Your task to perform on an android device: set the timer Image 0: 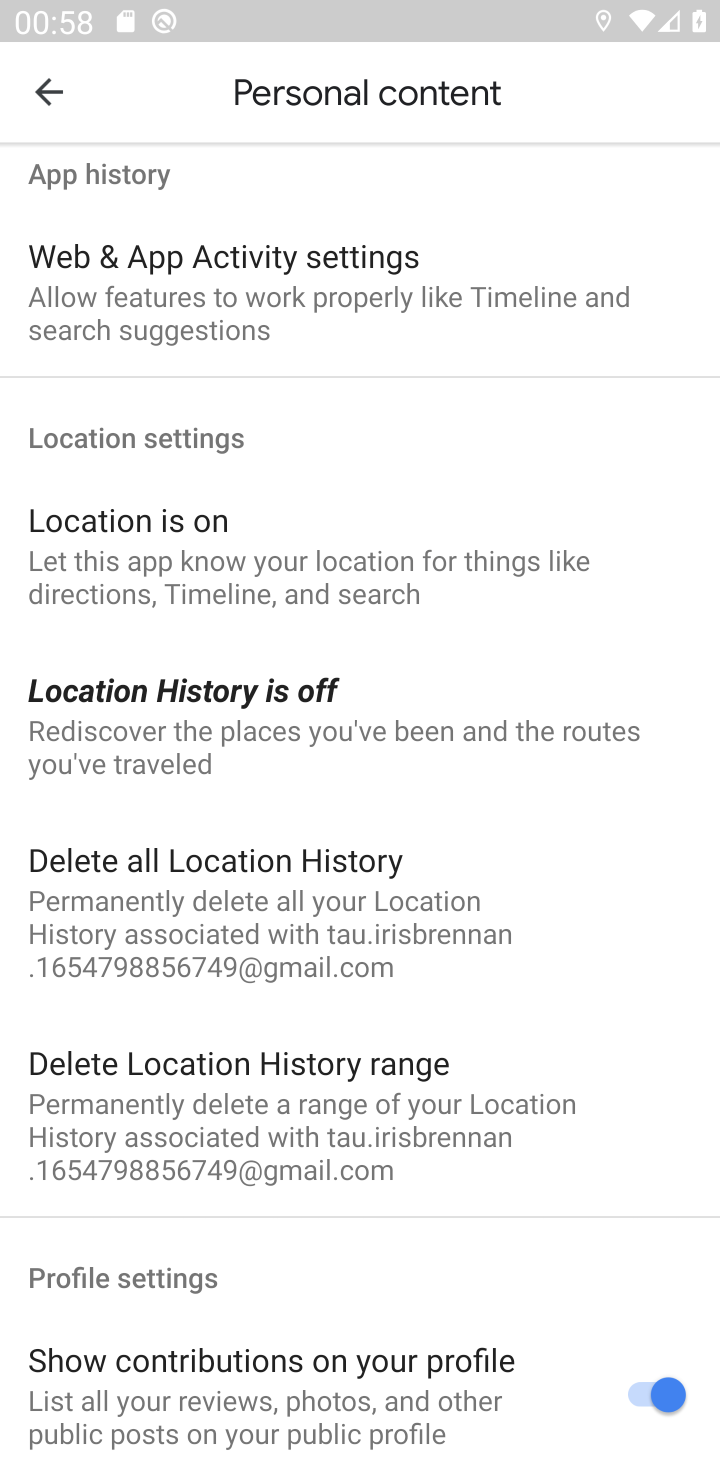
Step 0: click (60, 100)
Your task to perform on an android device: set the timer Image 1: 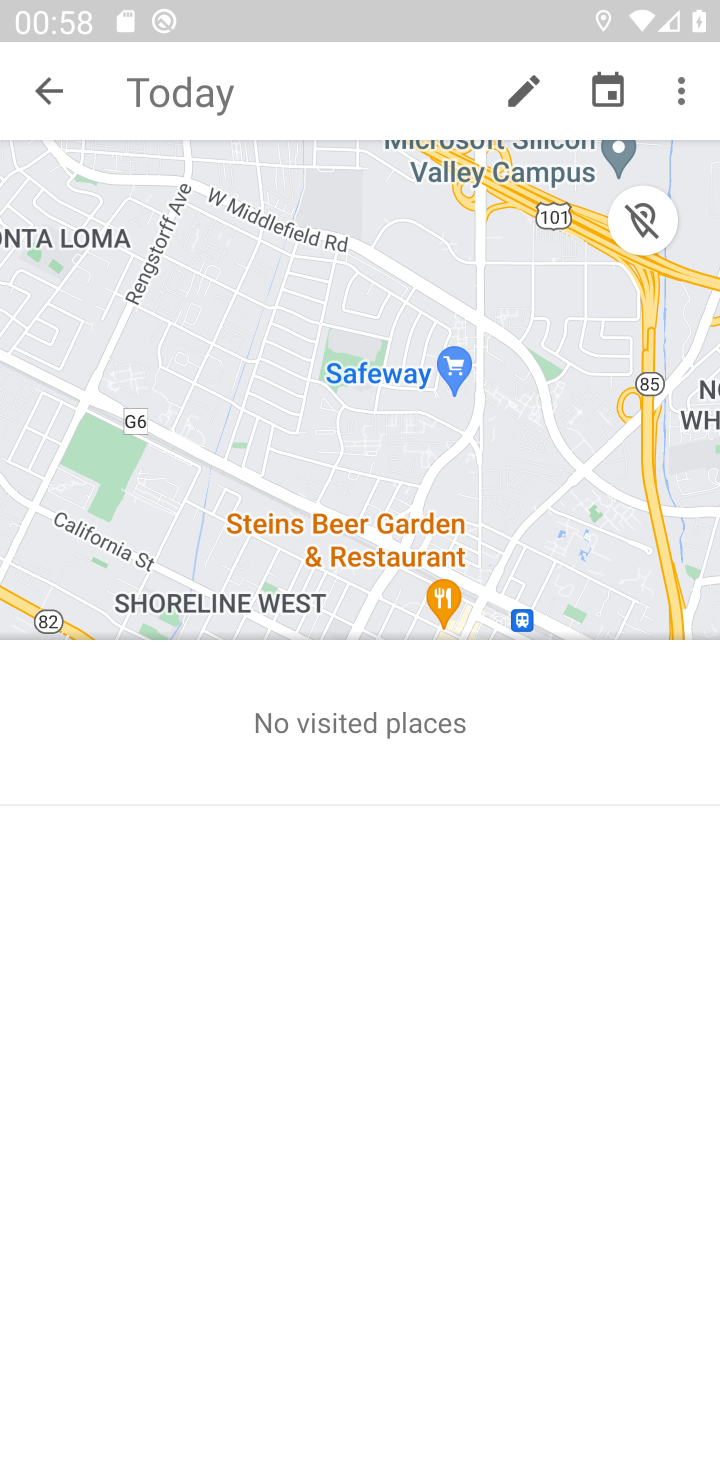
Step 1: press home button
Your task to perform on an android device: set the timer Image 2: 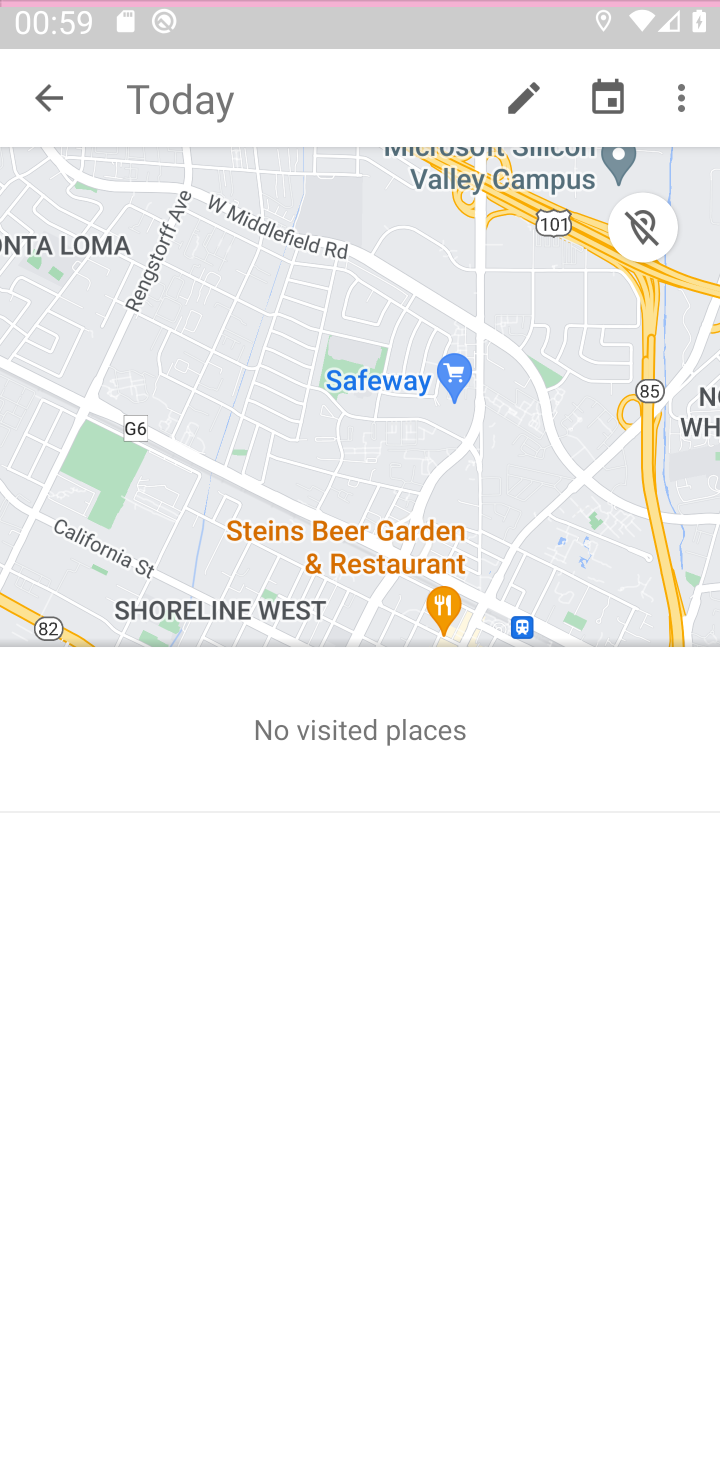
Step 2: press home button
Your task to perform on an android device: set the timer Image 3: 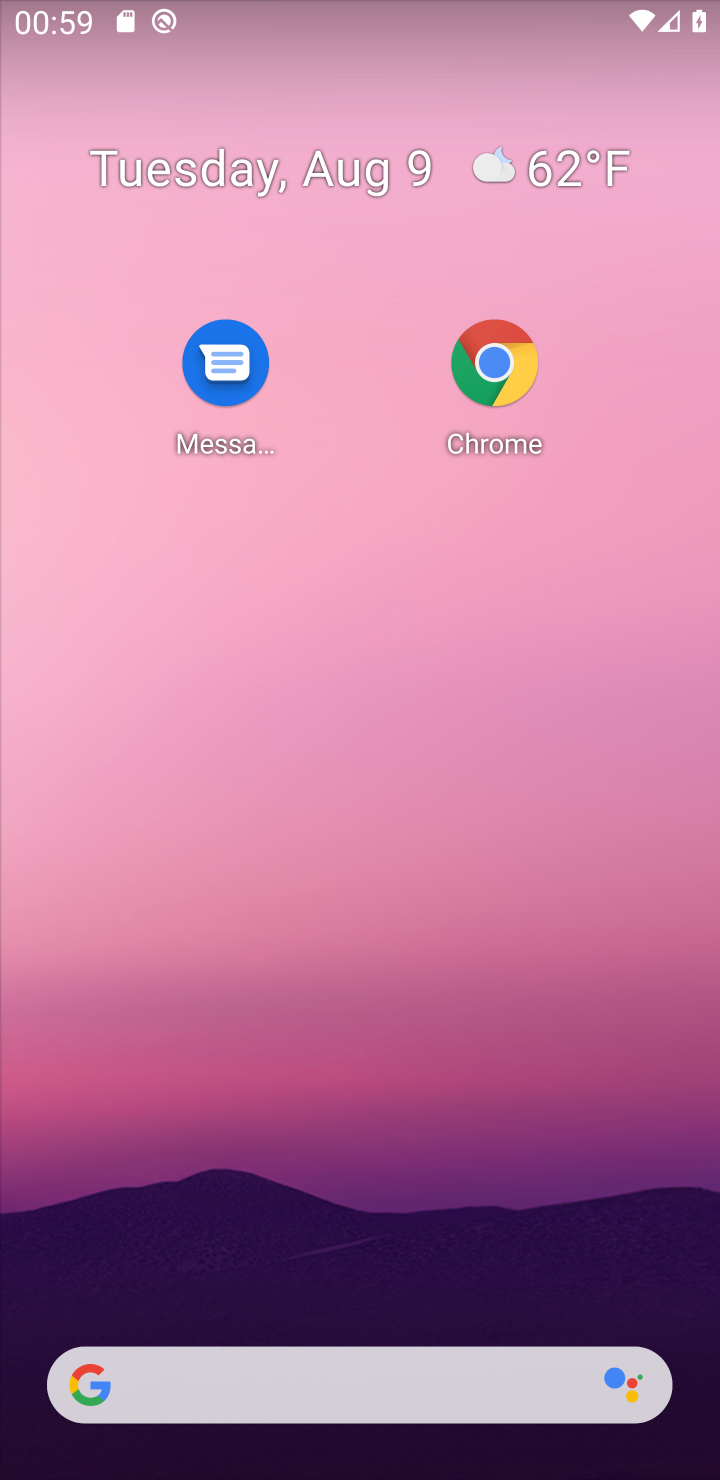
Step 3: drag from (392, 1147) to (484, 253)
Your task to perform on an android device: set the timer Image 4: 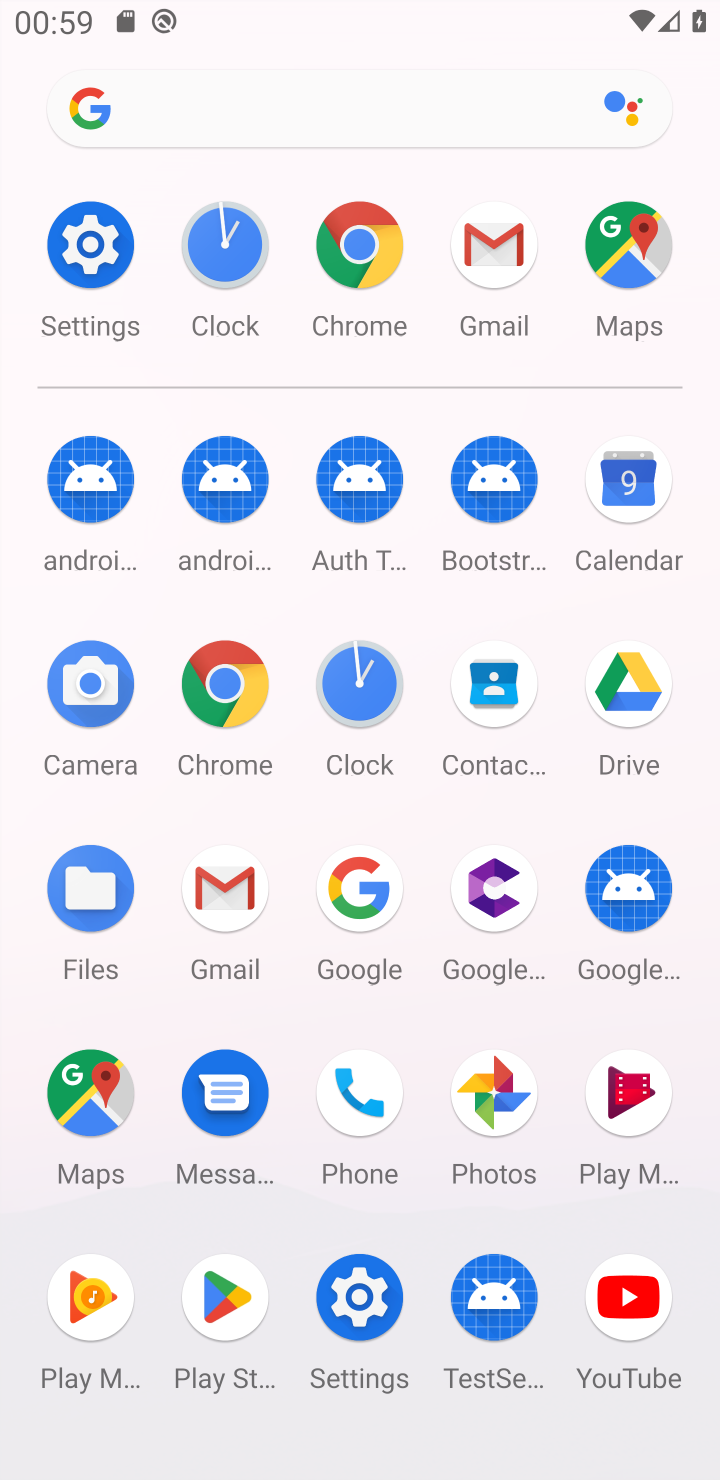
Step 4: click (361, 714)
Your task to perform on an android device: set the timer Image 5: 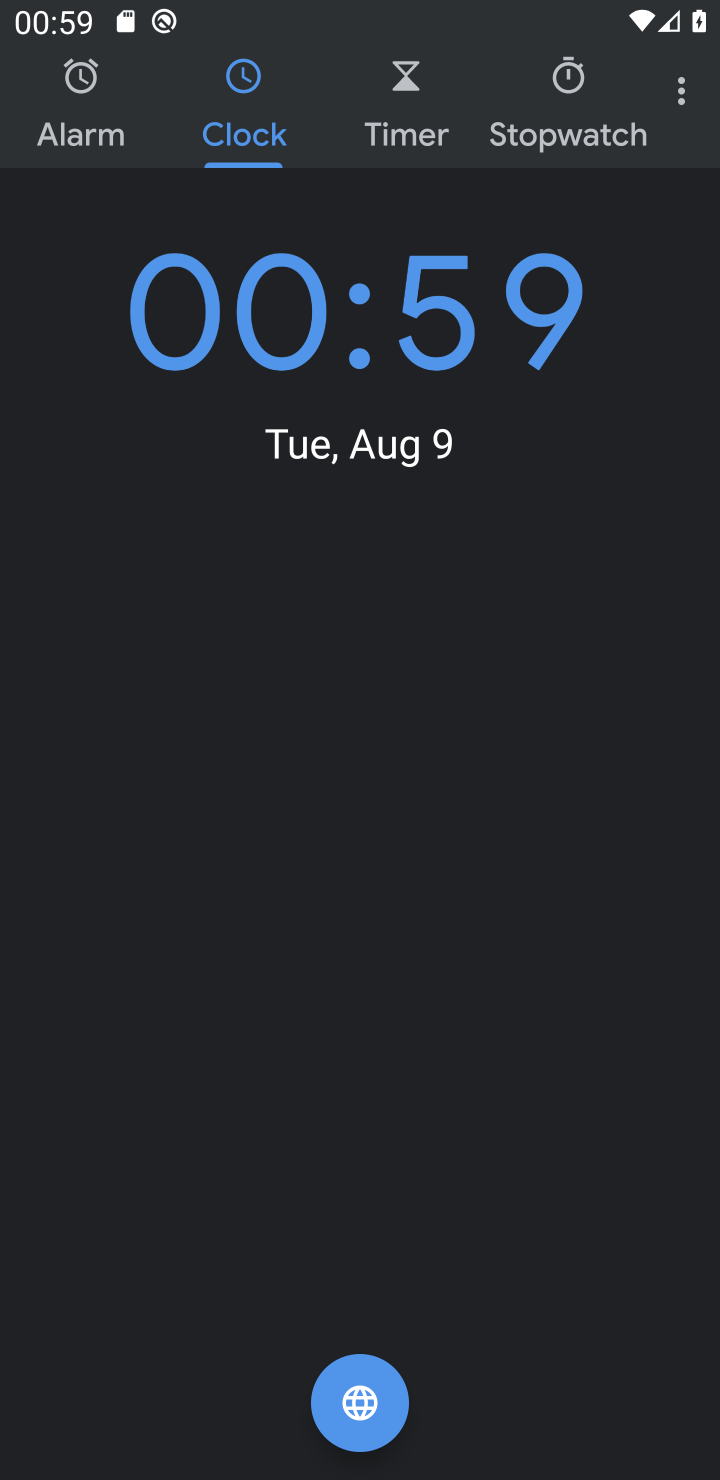
Step 5: click (411, 102)
Your task to perform on an android device: set the timer Image 6: 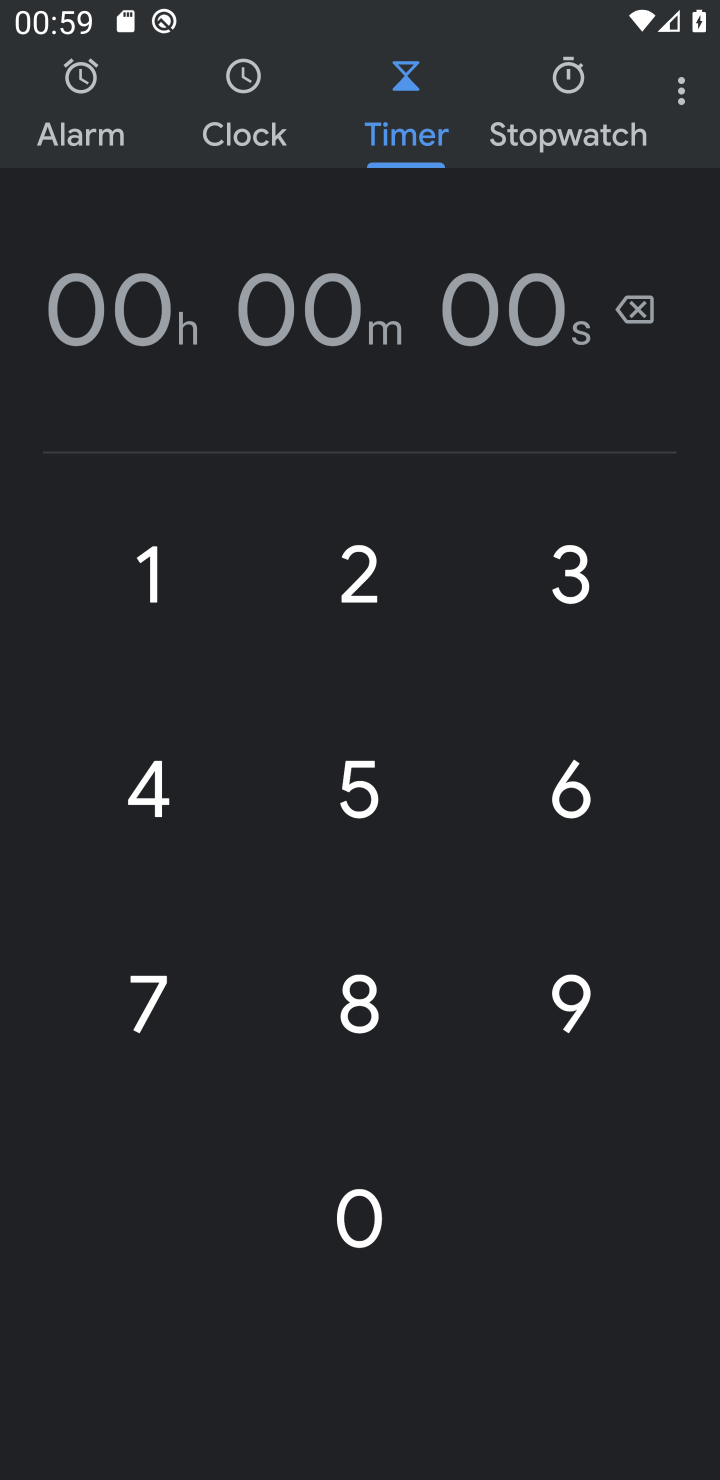
Step 6: click (396, 336)
Your task to perform on an android device: set the timer Image 7: 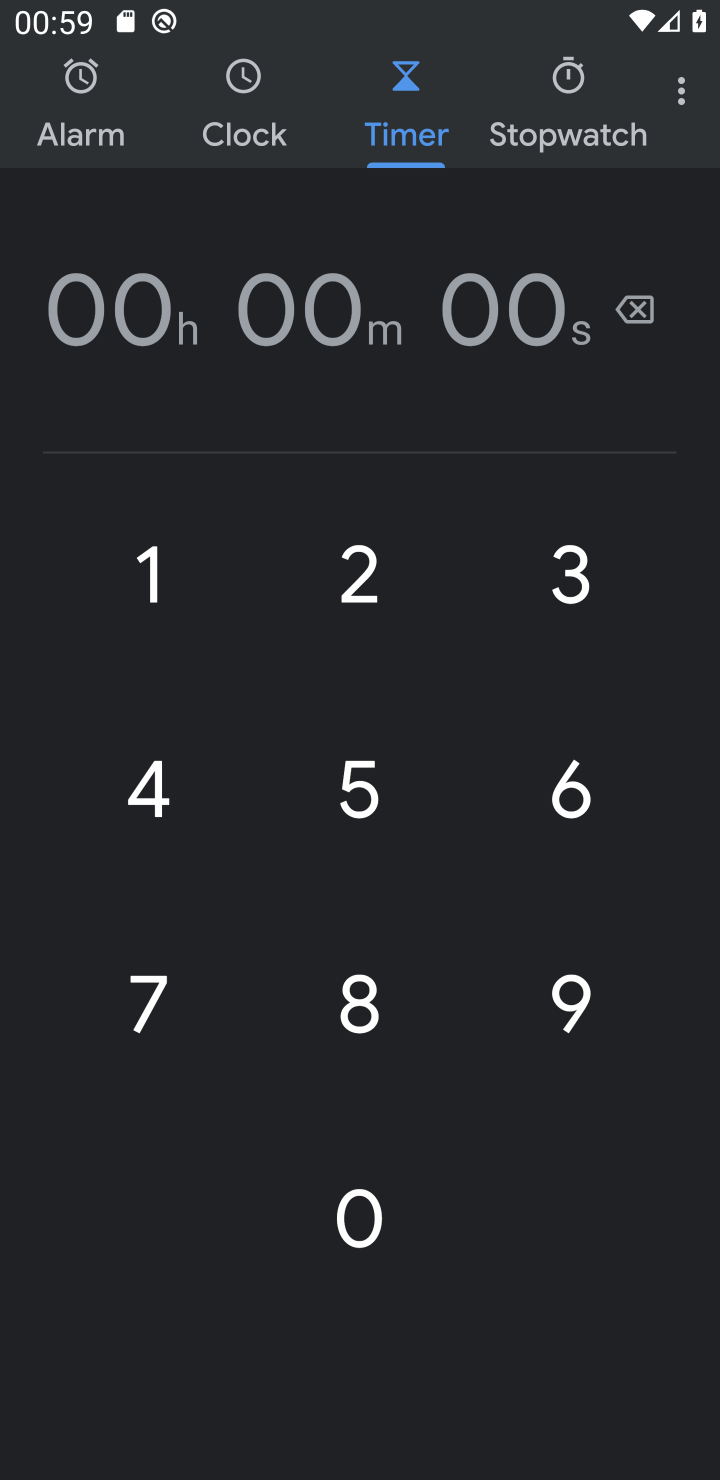
Step 7: type "878787878 "
Your task to perform on an android device: set the timer Image 8: 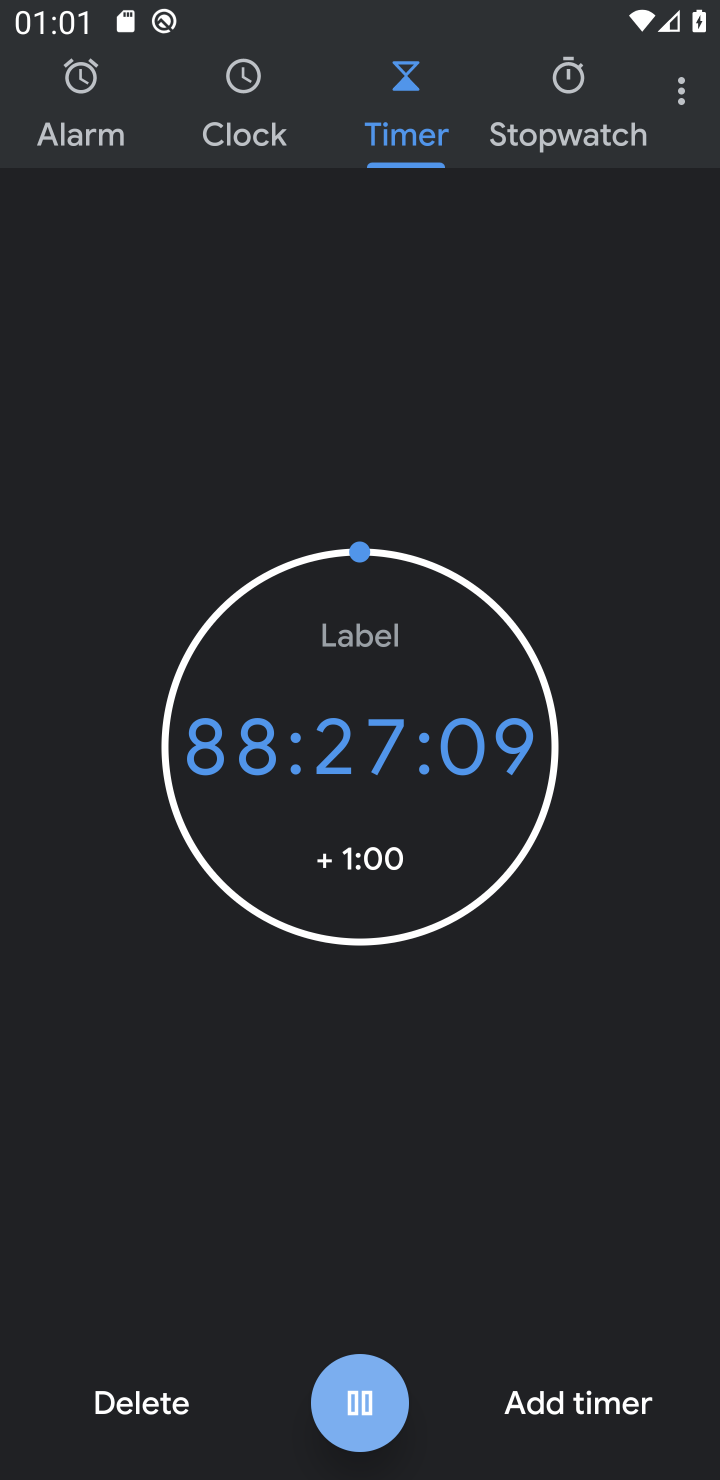
Step 8: task complete